Your task to perform on an android device: turn pop-ups off in chrome Image 0: 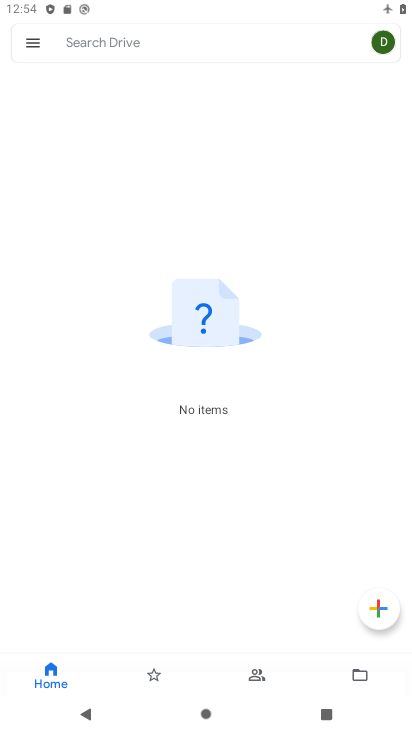
Step 0: press home button
Your task to perform on an android device: turn pop-ups off in chrome Image 1: 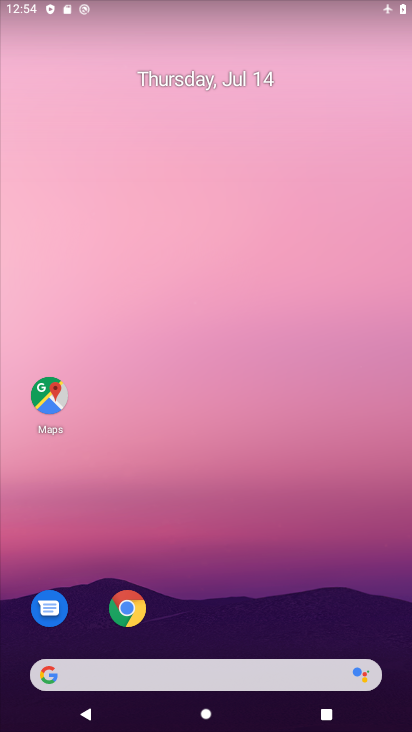
Step 1: click (131, 610)
Your task to perform on an android device: turn pop-ups off in chrome Image 2: 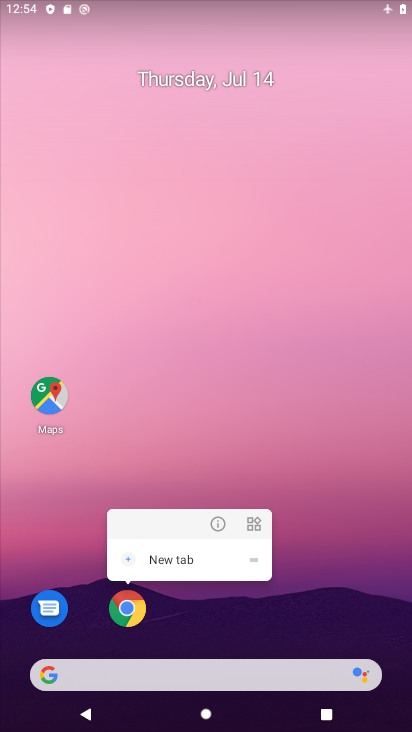
Step 2: click (222, 521)
Your task to perform on an android device: turn pop-ups off in chrome Image 3: 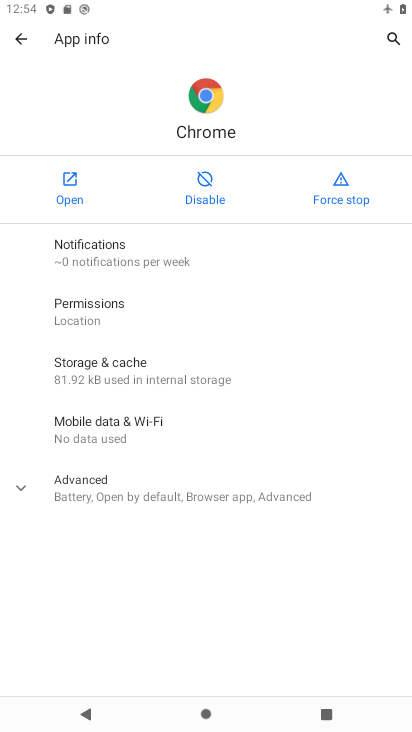
Step 3: click (15, 43)
Your task to perform on an android device: turn pop-ups off in chrome Image 4: 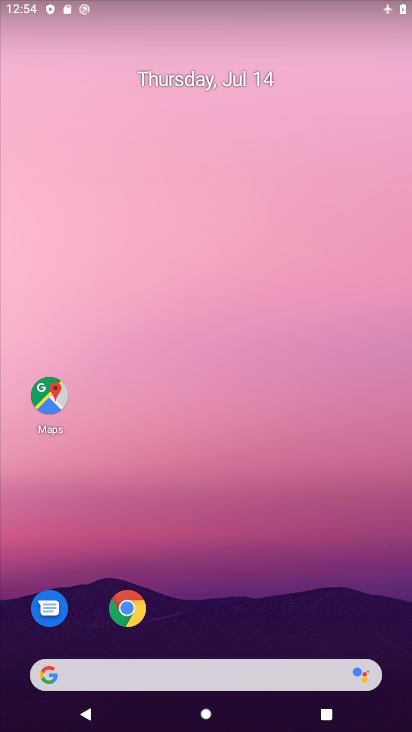
Step 4: click (131, 613)
Your task to perform on an android device: turn pop-ups off in chrome Image 5: 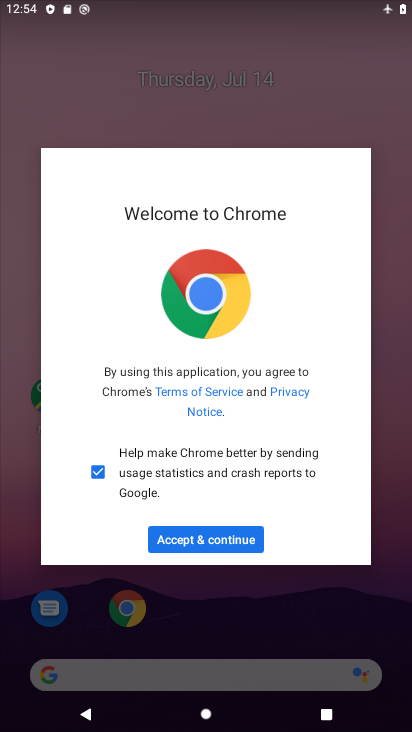
Step 5: click (223, 545)
Your task to perform on an android device: turn pop-ups off in chrome Image 6: 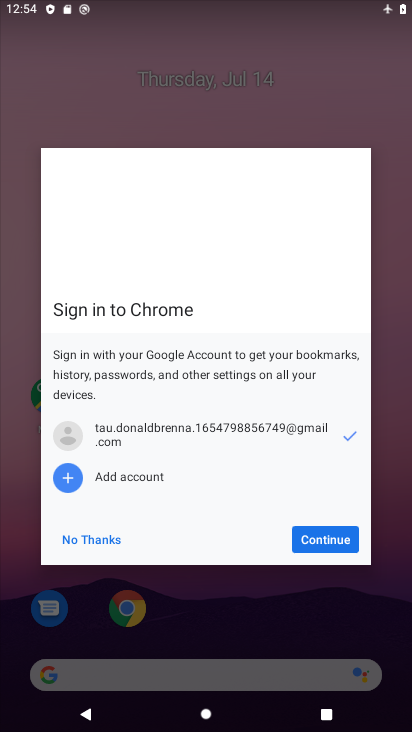
Step 6: click (295, 541)
Your task to perform on an android device: turn pop-ups off in chrome Image 7: 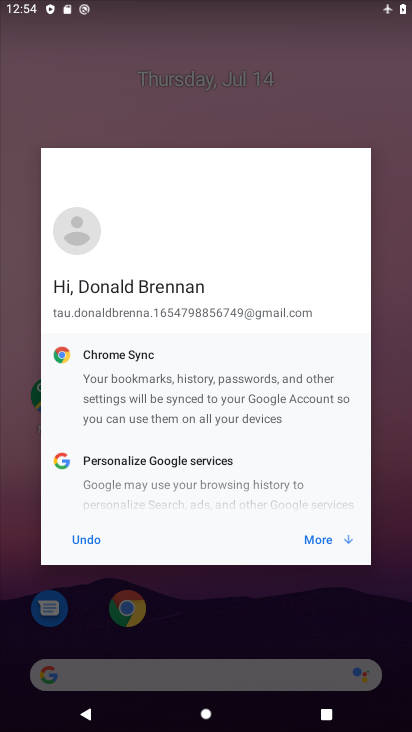
Step 7: click (319, 538)
Your task to perform on an android device: turn pop-ups off in chrome Image 8: 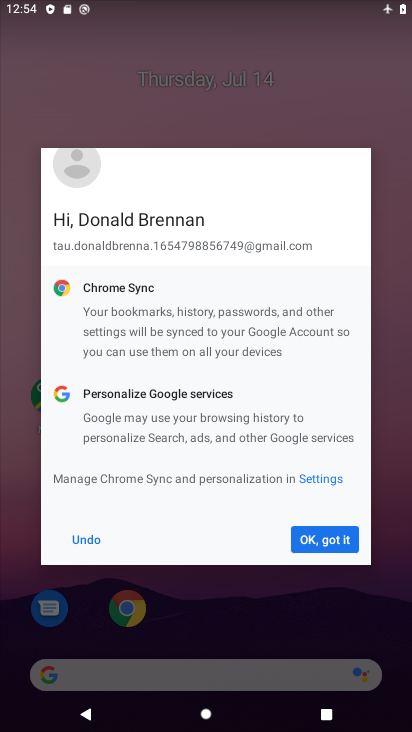
Step 8: click (319, 538)
Your task to perform on an android device: turn pop-ups off in chrome Image 9: 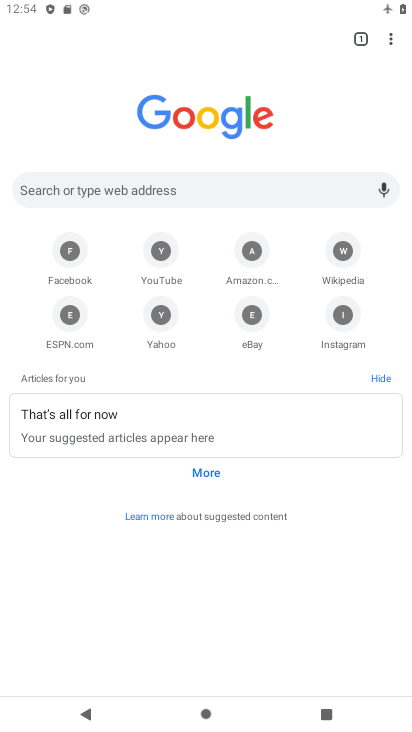
Step 9: click (389, 44)
Your task to perform on an android device: turn pop-ups off in chrome Image 10: 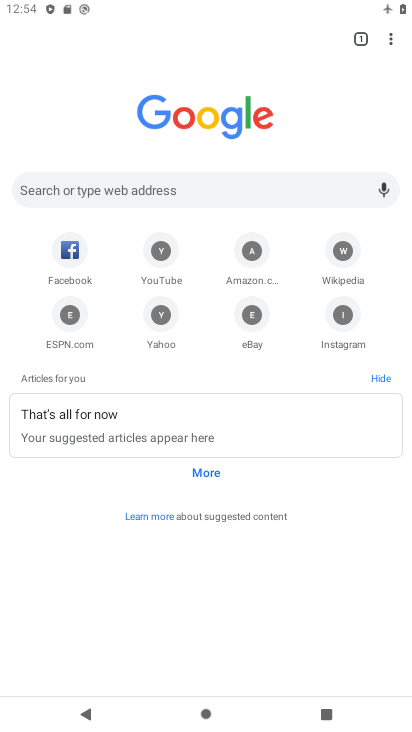
Step 10: click (390, 39)
Your task to perform on an android device: turn pop-ups off in chrome Image 11: 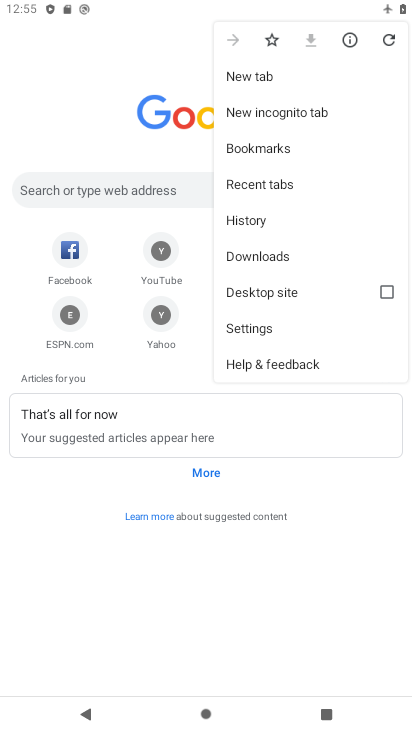
Step 11: click (260, 326)
Your task to perform on an android device: turn pop-ups off in chrome Image 12: 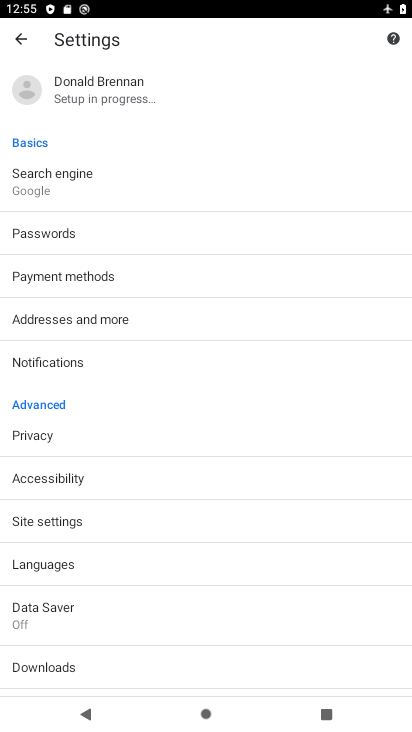
Step 12: drag from (94, 647) to (94, 308)
Your task to perform on an android device: turn pop-ups off in chrome Image 13: 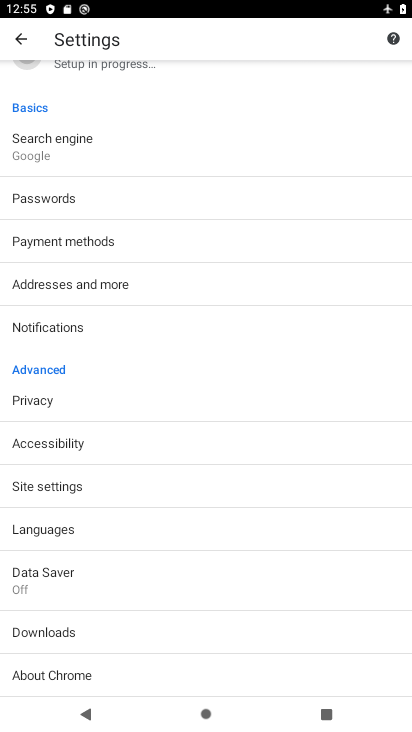
Step 13: click (48, 489)
Your task to perform on an android device: turn pop-ups off in chrome Image 14: 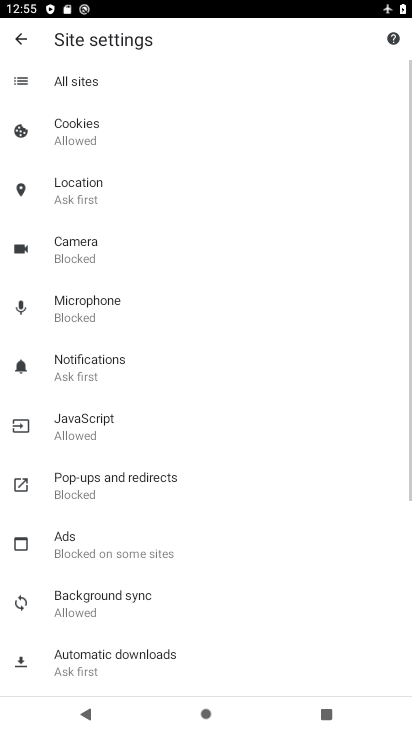
Step 14: click (95, 496)
Your task to perform on an android device: turn pop-ups off in chrome Image 15: 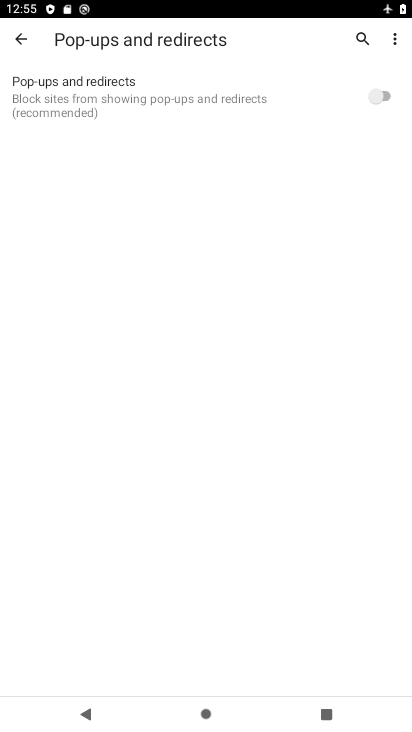
Step 15: task complete